Your task to perform on an android device: Search for seafood restaurants on Google Maps Image 0: 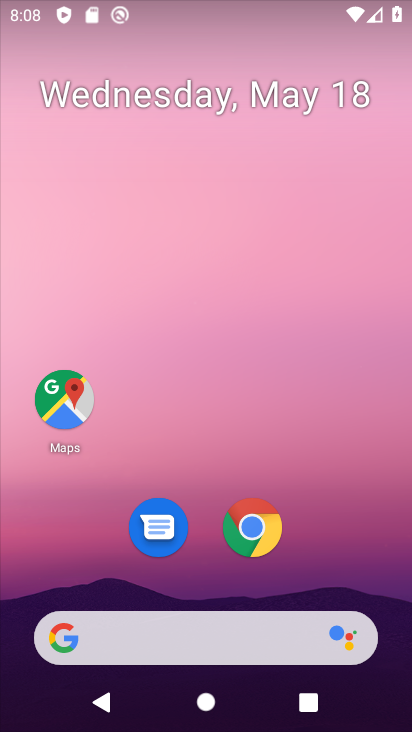
Step 0: drag from (358, 687) to (176, 160)
Your task to perform on an android device: Search for seafood restaurants on Google Maps Image 1: 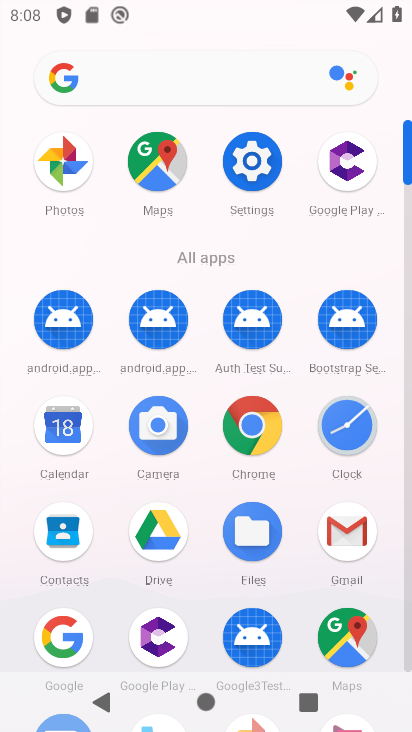
Step 1: click (353, 640)
Your task to perform on an android device: Search for seafood restaurants on Google Maps Image 2: 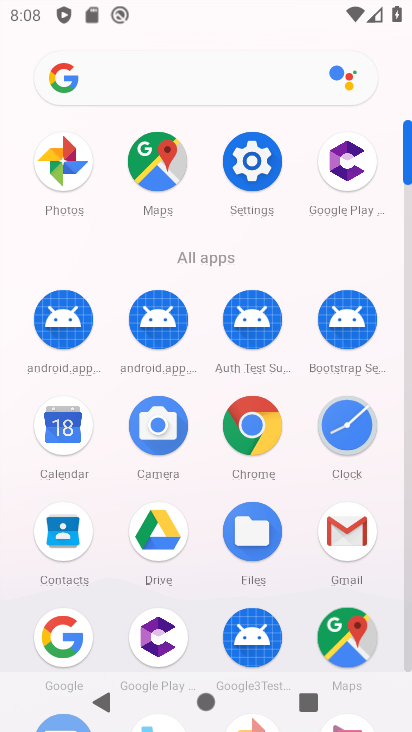
Step 2: click (353, 640)
Your task to perform on an android device: Search for seafood restaurants on Google Maps Image 3: 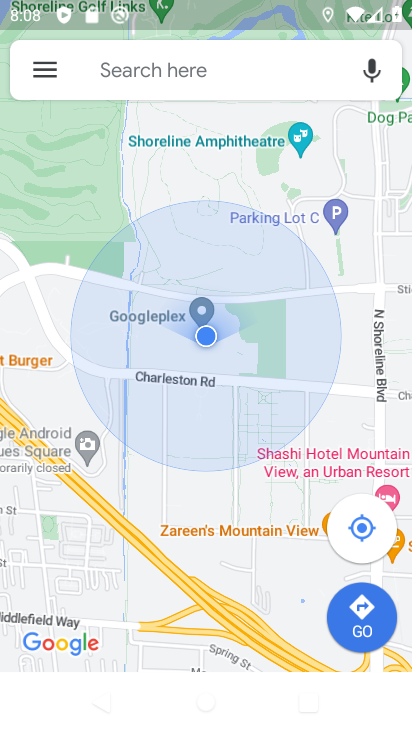
Step 3: click (100, 56)
Your task to perform on an android device: Search for seafood restaurants on Google Maps Image 4: 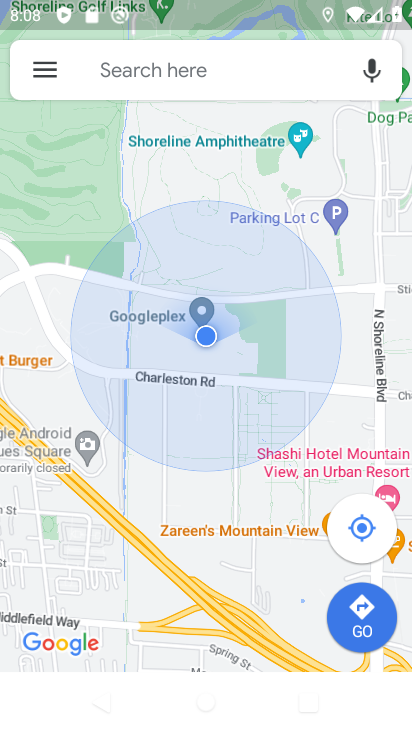
Step 4: click (109, 78)
Your task to perform on an android device: Search for seafood restaurants on Google Maps Image 5: 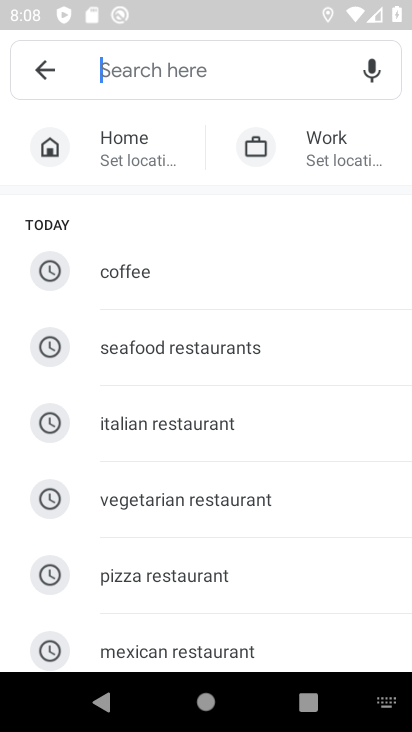
Step 5: click (177, 354)
Your task to perform on an android device: Search for seafood restaurants on Google Maps Image 6: 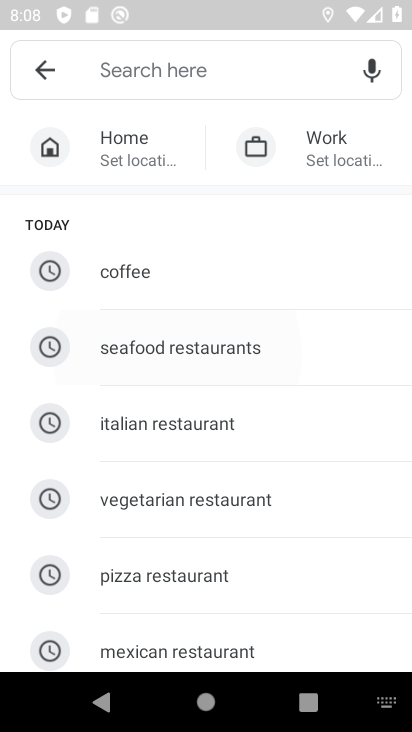
Step 6: click (177, 354)
Your task to perform on an android device: Search for seafood restaurants on Google Maps Image 7: 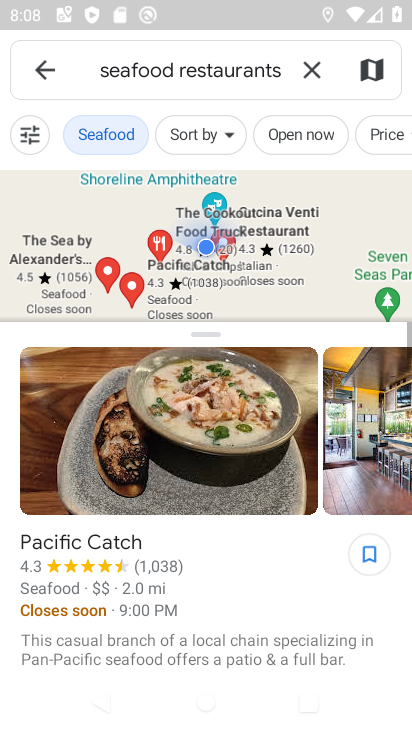
Step 7: task complete